Your task to perform on an android device: add a contact in the contacts app Image 0: 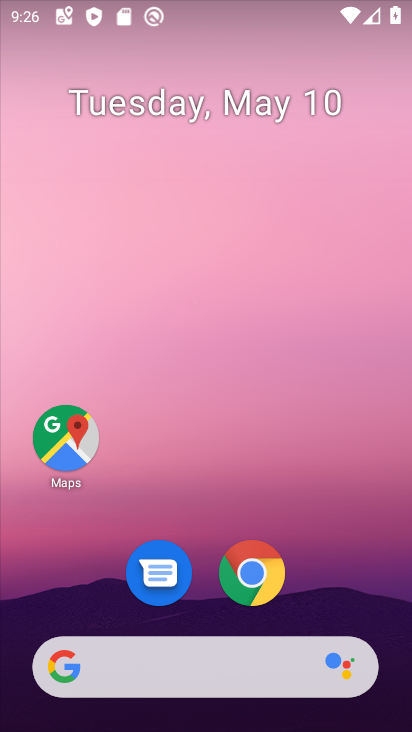
Step 0: drag from (348, 560) to (174, 82)
Your task to perform on an android device: add a contact in the contacts app Image 1: 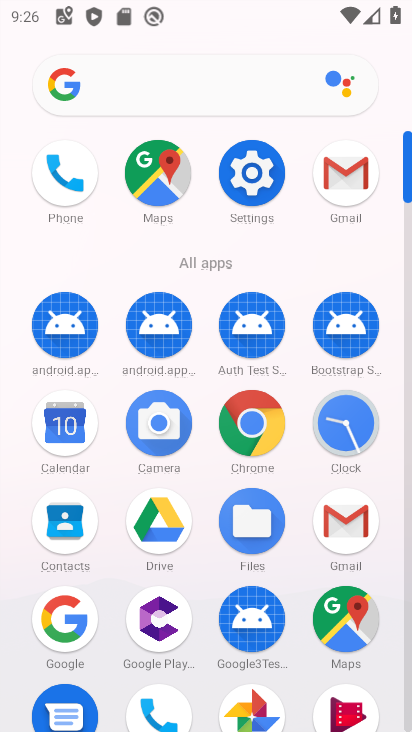
Step 1: click (58, 522)
Your task to perform on an android device: add a contact in the contacts app Image 2: 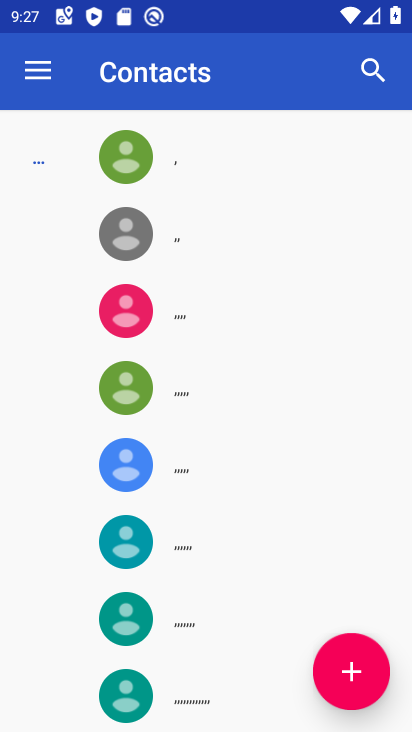
Step 2: click (358, 678)
Your task to perform on an android device: add a contact in the contacts app Image 3: 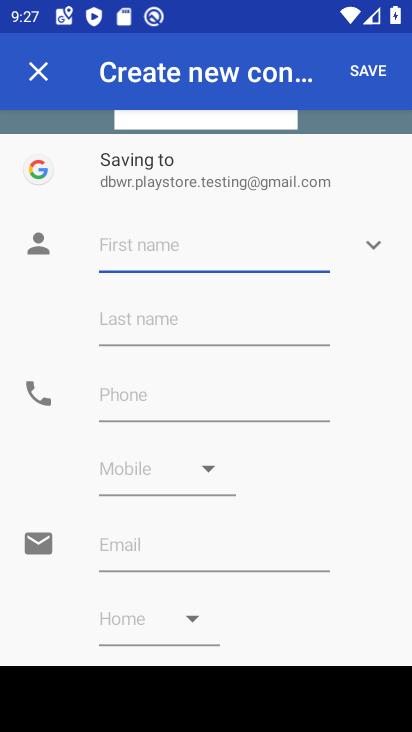
Step 3: type "gfd"
Your task to perform on an android device: add a contact in the contacts app Image 4: 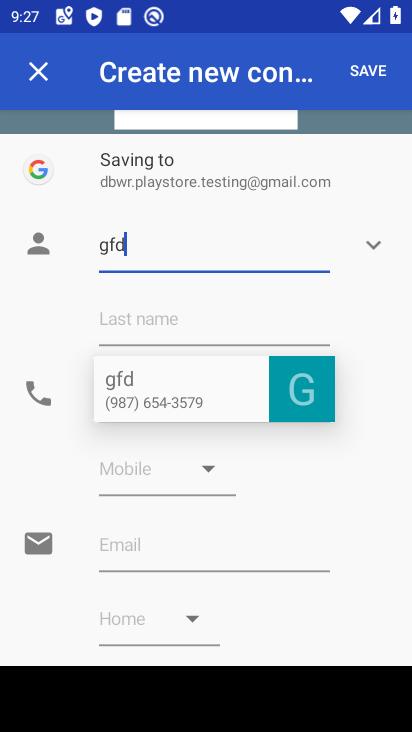
Step 4: type "gfffffff"
Your task to perform on an android device: add a contact in the contacts app Image 5: 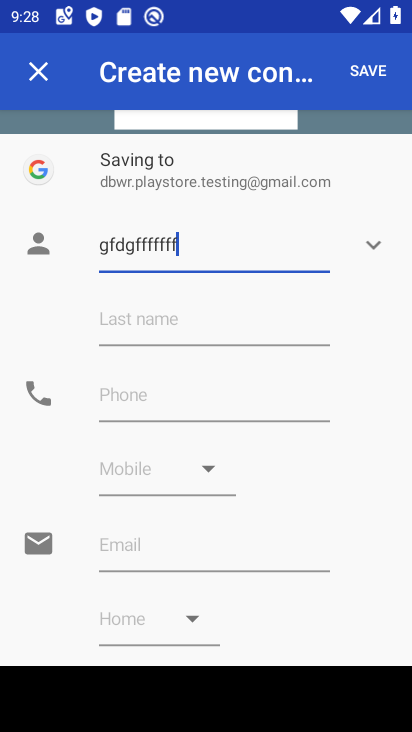
Step 5: click (166, 402)
Your task to perform on an android device: add a contact in the contacts app Image 6: 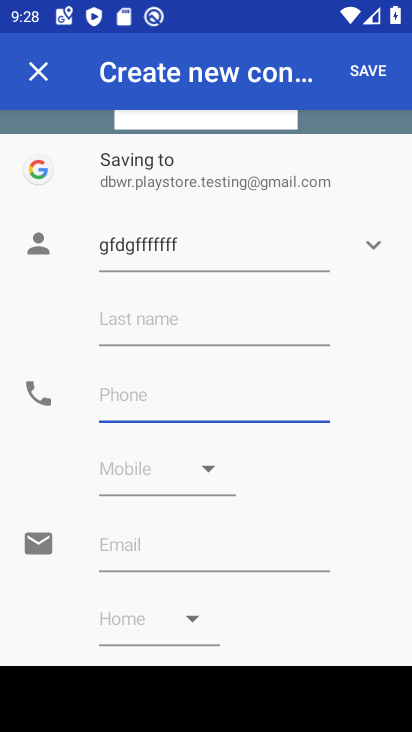
Step 6: type "44444444"
Your task to perform on an android device: add a contact in the contacts app Image 7: 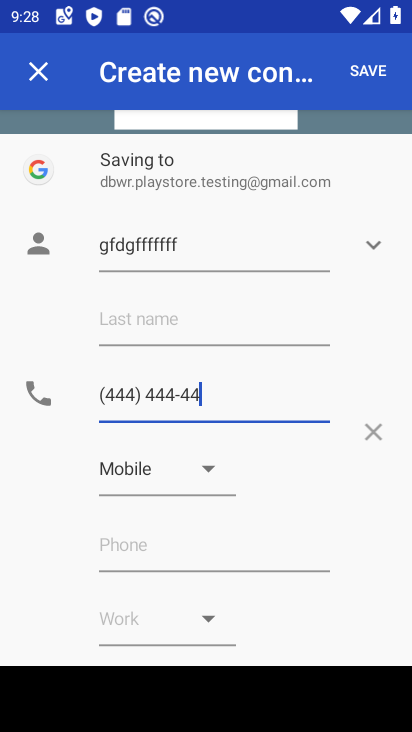
Step 7: click (367, 69)
Your task to perform on an android device: add a contact in the contacts app Image 8: 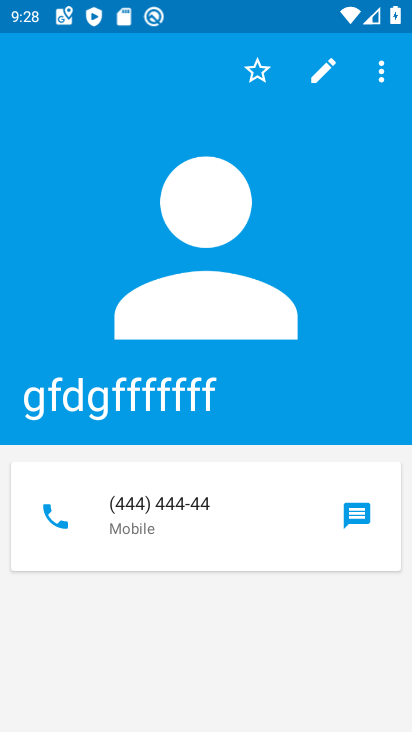
Step 8: task complete